Your task to perform on an android device: Open settings Image 0: 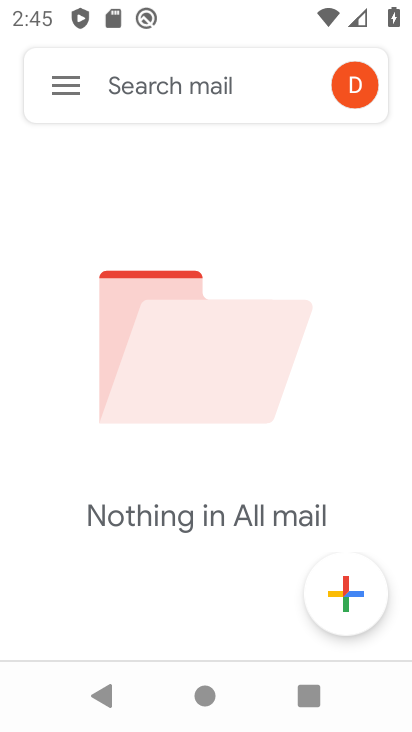
Step 0: press home button
Your task to perform on an android device: Open settings Image 1: 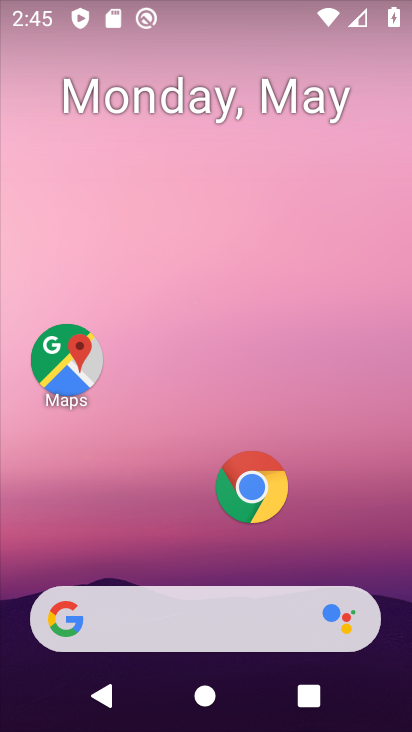
Step 1: drag from (200, 451) to (278, 115)
Your task to perform on an android device: Open settings Image 2: 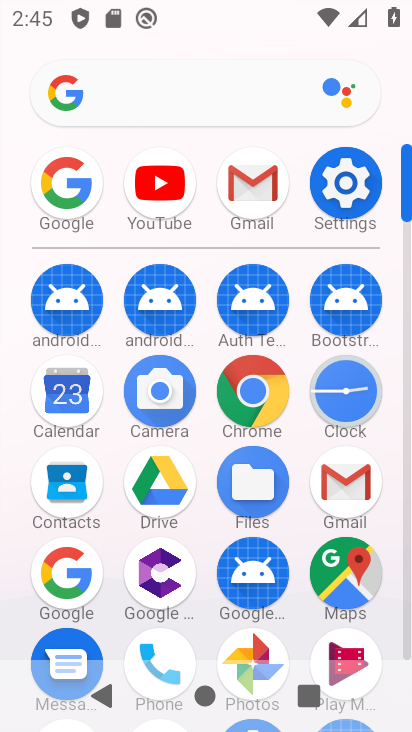
Step 2: click (337, 187)
Your task to perform on an android device: Open settings Image 3: 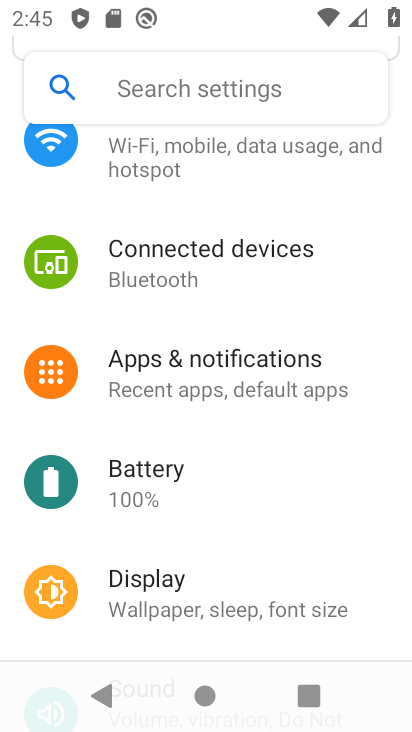
Step 3: task complete